Your task to perform on an android device: turn off wifi Image 0: 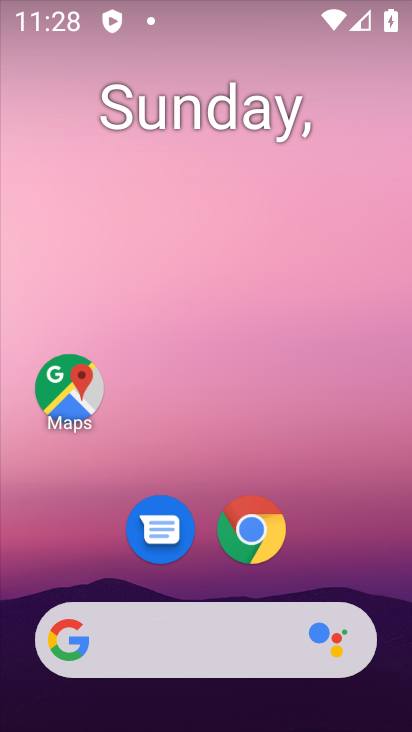
Step 0: drag from (365, 541) to (291, 94)
Your task to perform on an android device: turn off wifi Image 1: 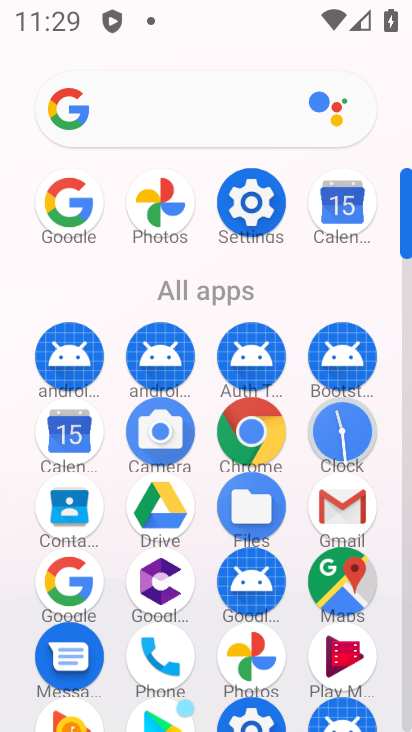
Step 1: click (250, 202)
Your task to perform on an android device: turn off wifi Image 2: 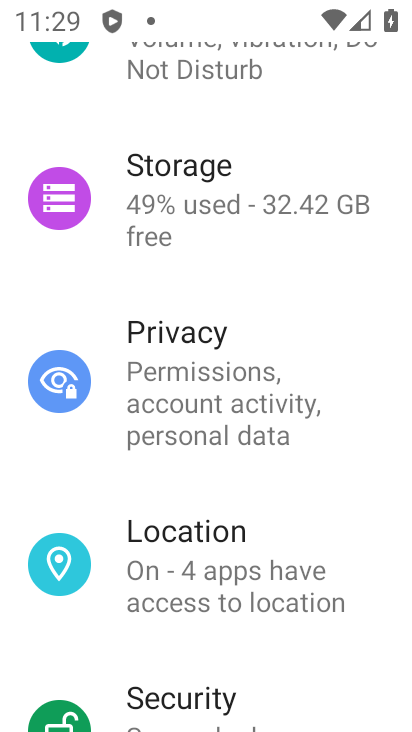
Step 2: drag from (274, 163) to (269, 329)
Your task to perform on an android device: turn off wifi Image 3: 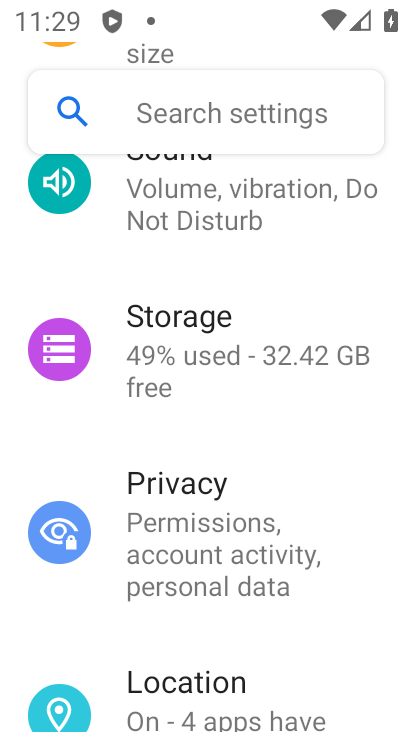
Step 3: drag from (261, 291) to (255, 419)
Your task to perform on an android device: turn off wifi Image 4: 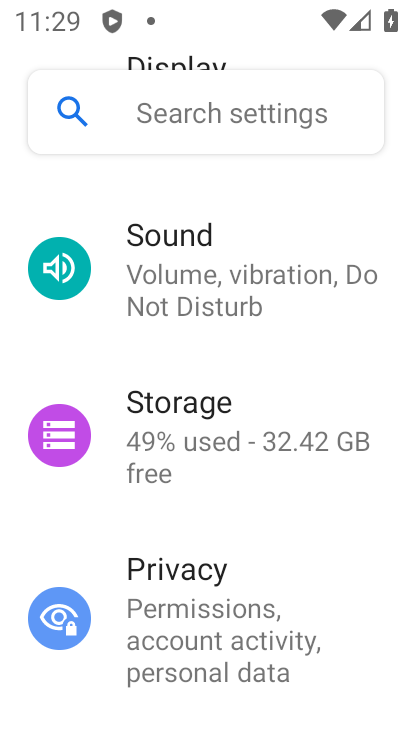
Step 4: drag from (282, 243) to (291, 411)
Your task to perform on an android device: turn off wifi Image 5: 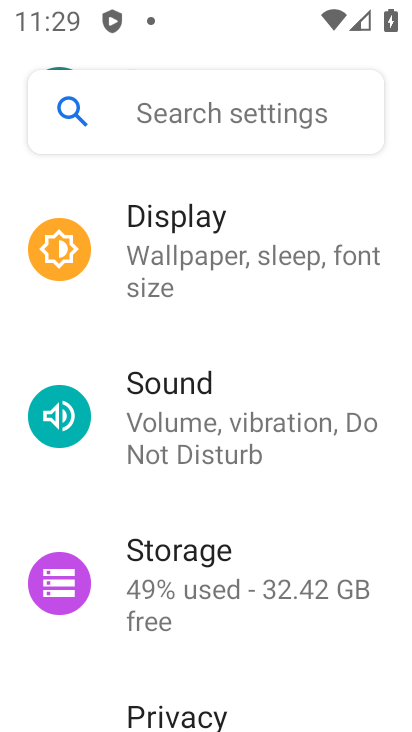
Step 5: drag from (290, 310) to (309, 446)
Your task to perform on an android device: turn off wifi Image 6: 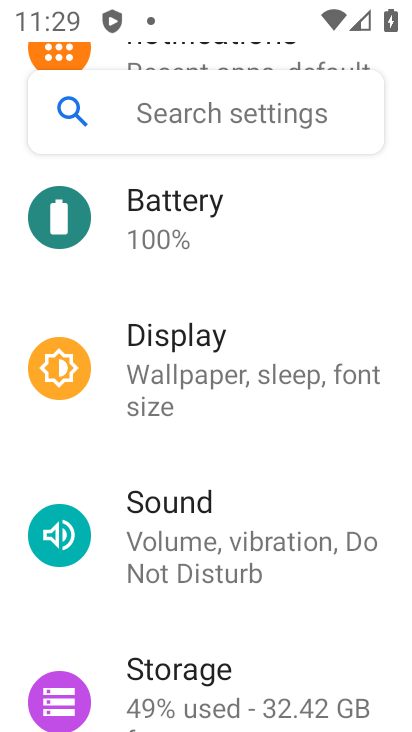
Step 6: drag from (289, 239) to (308, 399)
Your task to perform on an android device: turn off wifi Image 7: 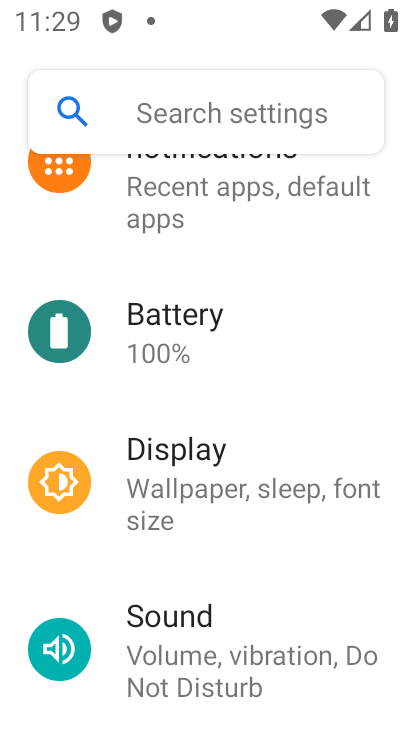
Step 7: drag from (286, 260) to (298, 441)
Your task to perform on an android device: turn off wifi Image 8: 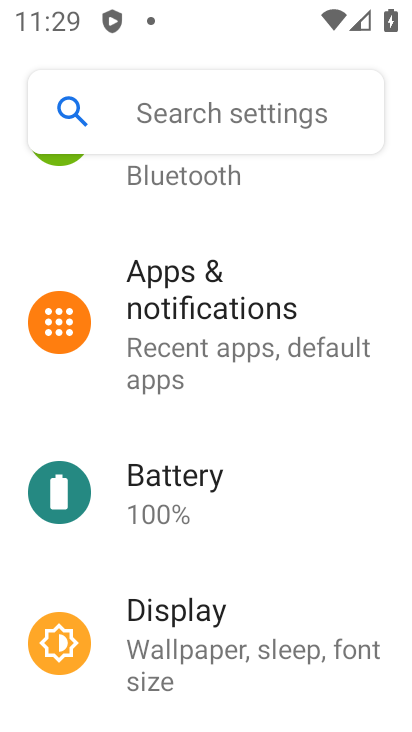
Step 8: drag from (310, 233) to (296, 413)
Your task to perform on an android device: turn off wifi Image 9: 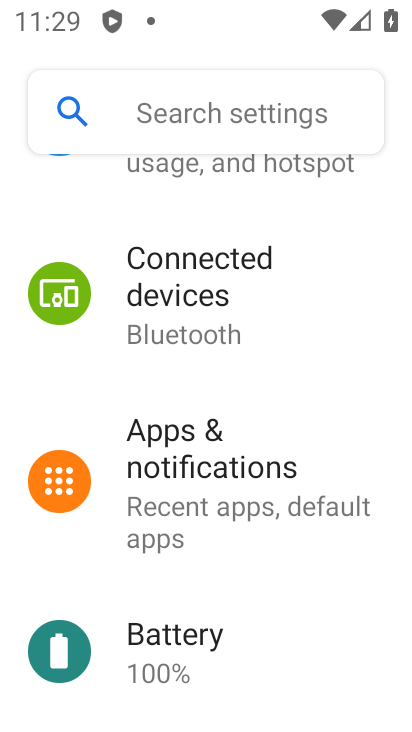
Step 9: drag from (291, 228) to (289, 390)
Your task to perform on an android device: turn off wifi Image 10: 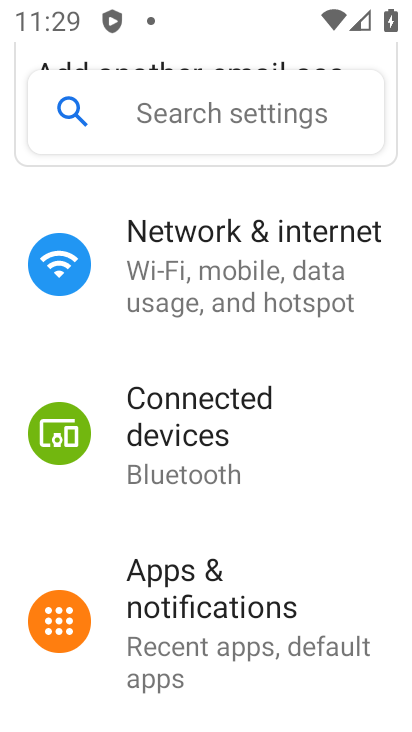
Step 10: drag from (259, 326) to (271, 441)
Your task to perform on an android device: turn off wifi Image 11: 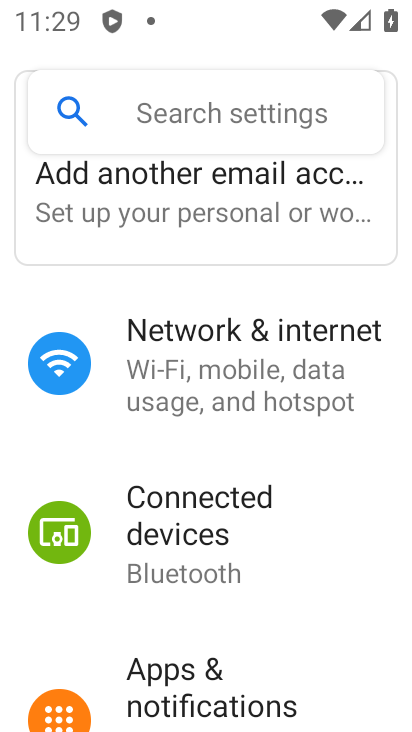
Step 11: click (250, 328)
Your task to perform on an android device: turn off wifi Image 12: 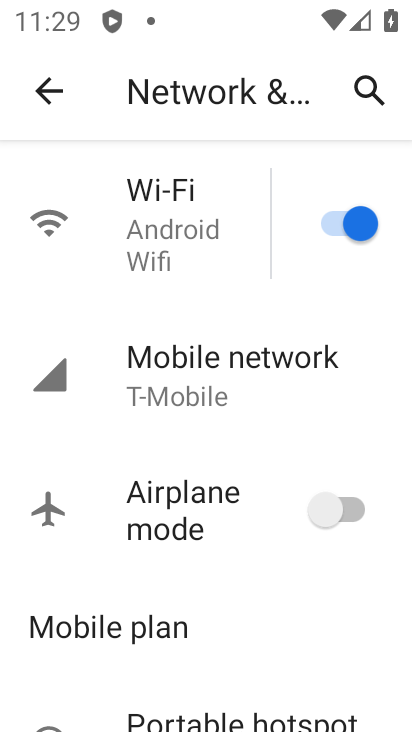
Step 12: click (330, 220)
Your task to perform on an android device: turn off wifi Image 13: 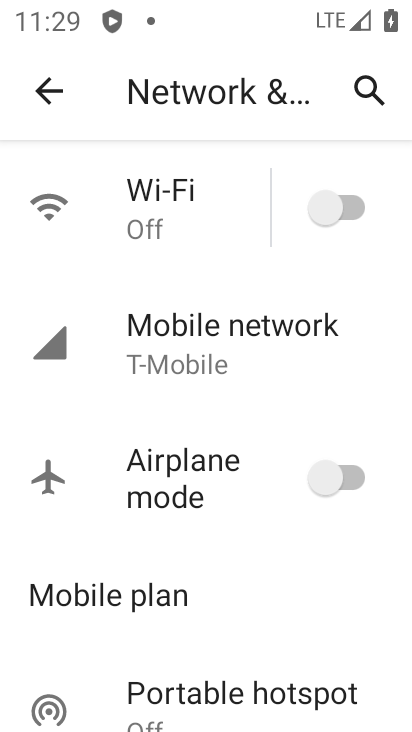
Step 13: task complete